Your task to perform on an android device: turn off smart reply in the gmail app Image 0: 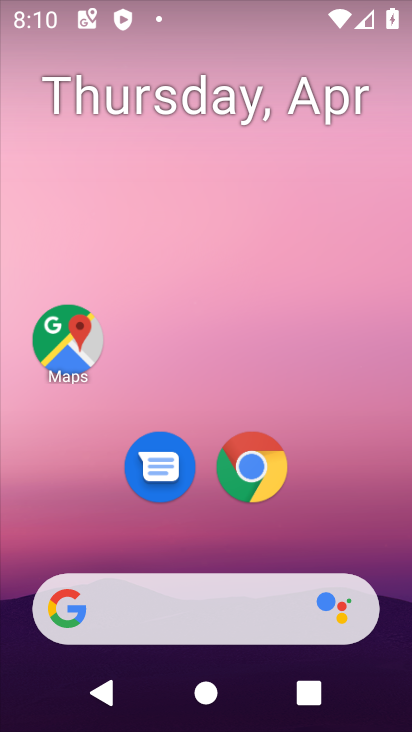
Step 0: drag from (146, 631) to (273, 44)
Your task to perform on an android device: turn off smart reply in the gmail app Image 1: 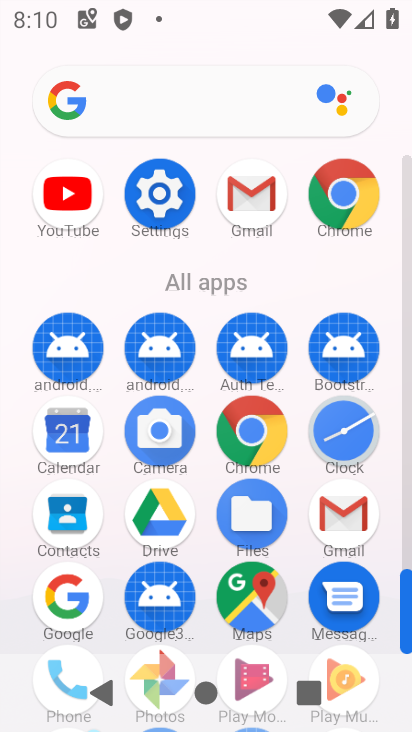
Step 1: click (240, 200)
Your task to perform on an android device: turn off smart reply in the gmail app Image 2: 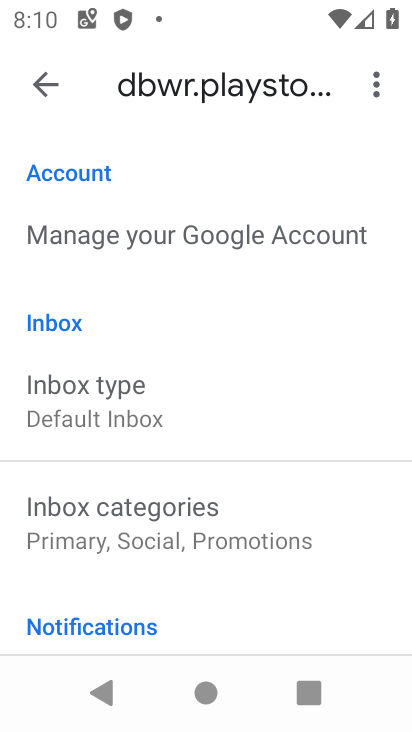
Step 2: drag from (236, 575) to (325, 6)
Your task to perform on an android device: turn off smart reply in the gmail app Image 3: 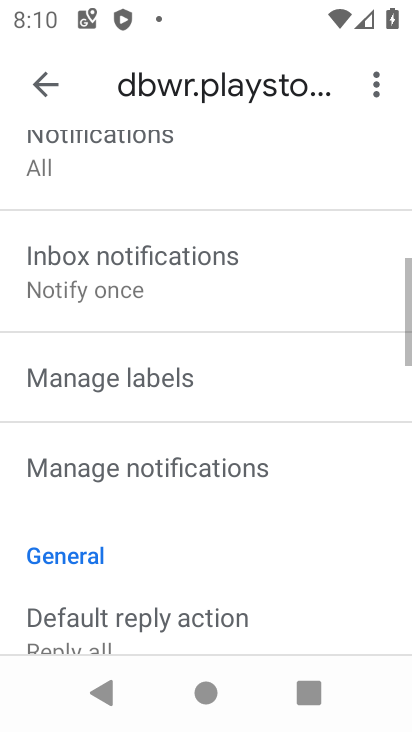
Step 3: drag from (206, 480) to (234, 17)
Your task to perform on an android device: turn off smart reply in the gmail app Image 4: 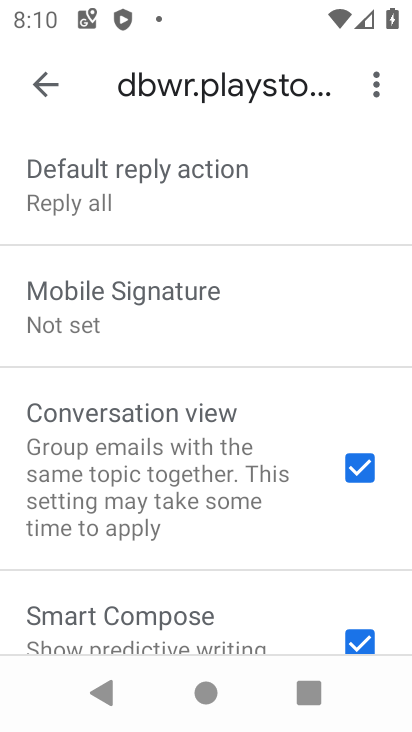
Step 4: drag from (205, 591) to (294, 167)
Your task to perform on an android device: turn off smart reply in the gmail app Image 5: 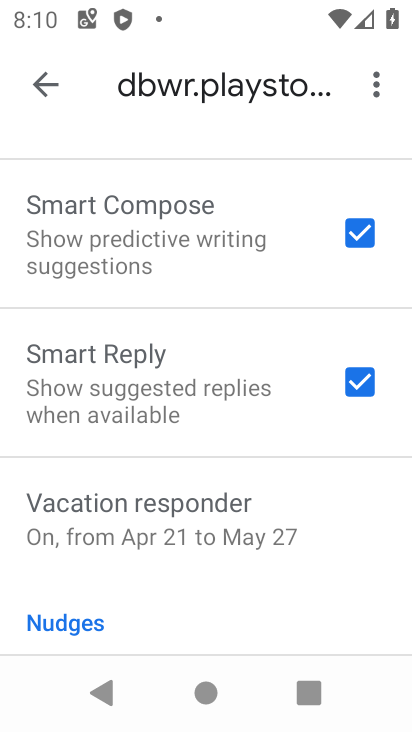
Step 5: click (357, 383)
Your task to perform on an android device: turn off smart reply in the gmail app Image 6: 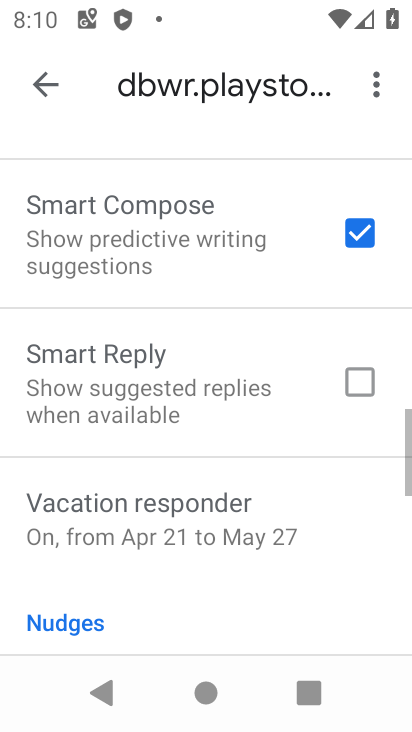
Step 6: task complete